Your task to perform on an android device: Go to internet settings Image 0: 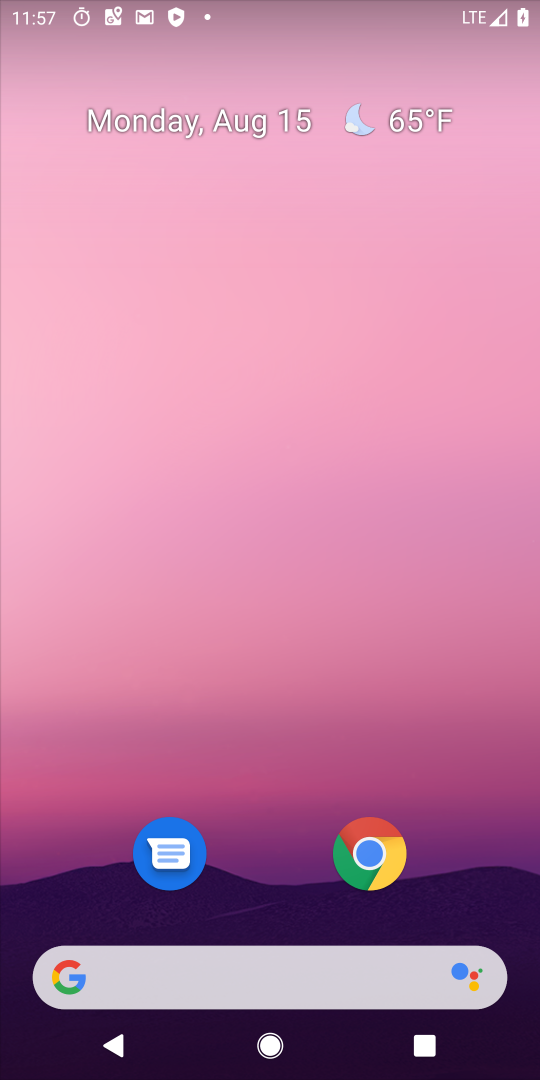
Step 0: drag from (267, 877) to (275, 360)
Your task to perform on an android device: Go to internet settings Image 1: 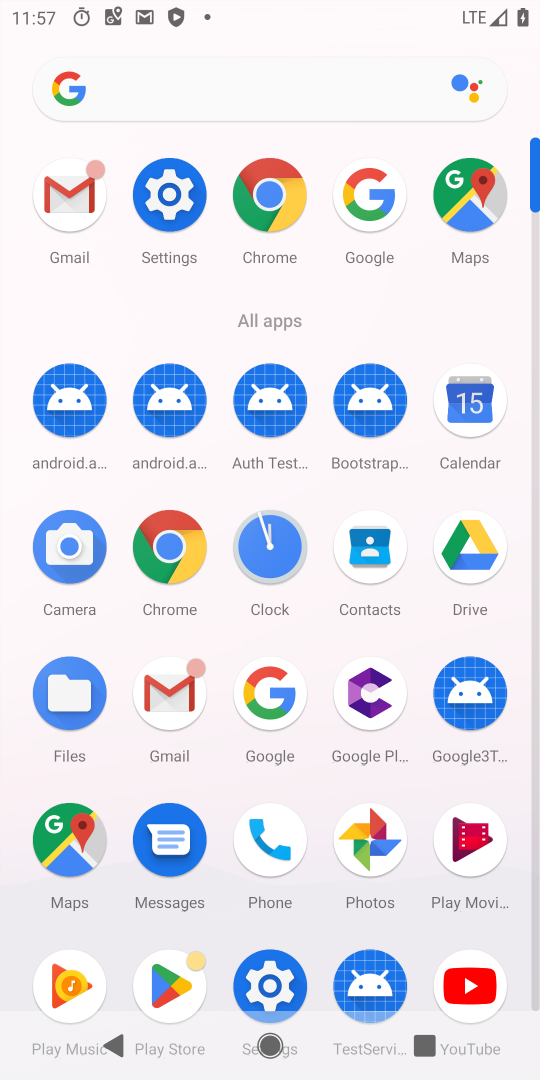
Step 1: click (166, 211)
Your task to perform on an android device: Go to internet settings Image 2: 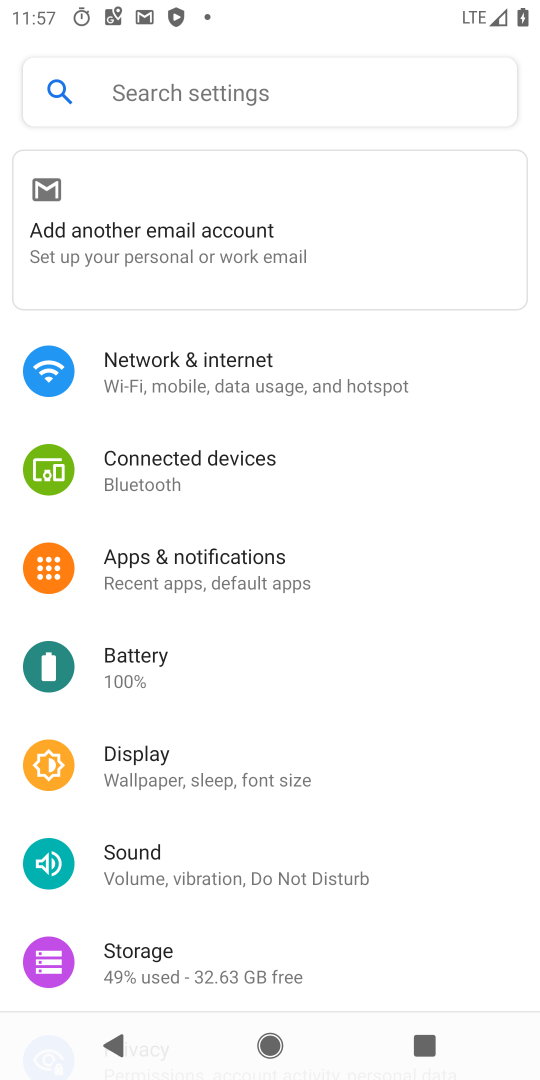
Step 2: click (228, 366)
Your task to perform on an android device: Go to internet settings Image 3: 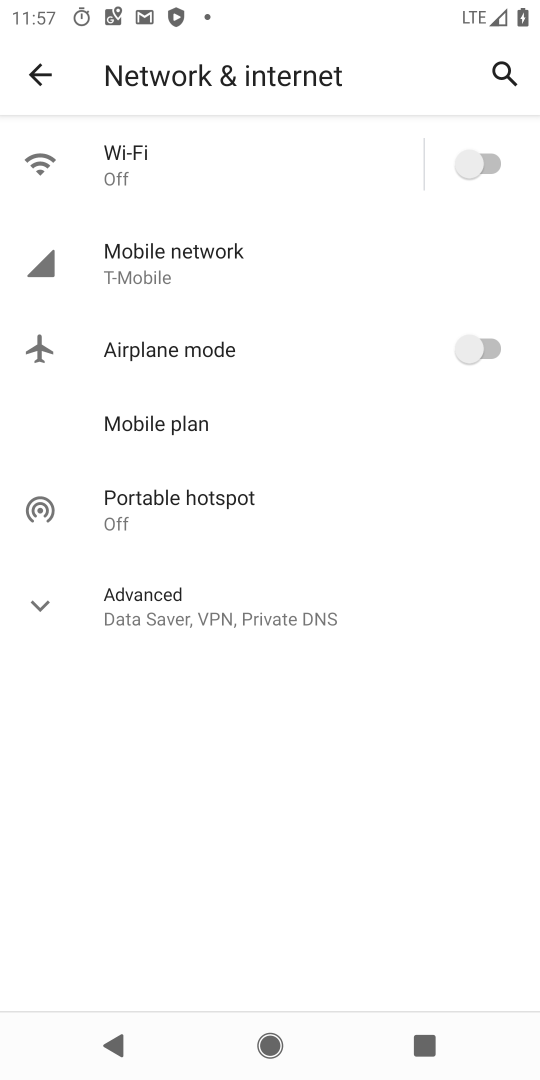
Step 3: click (146, 589)
Your task to perform on an android device: Go to internet settings Image 4: 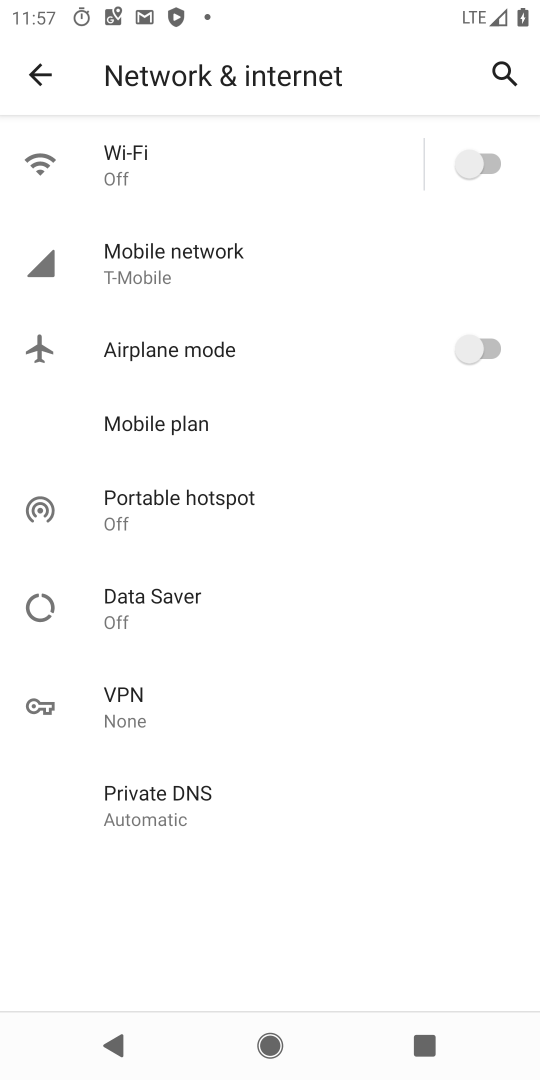
Step 4: task complete